Your task to perform on an android device: Open battery settings Image 0: 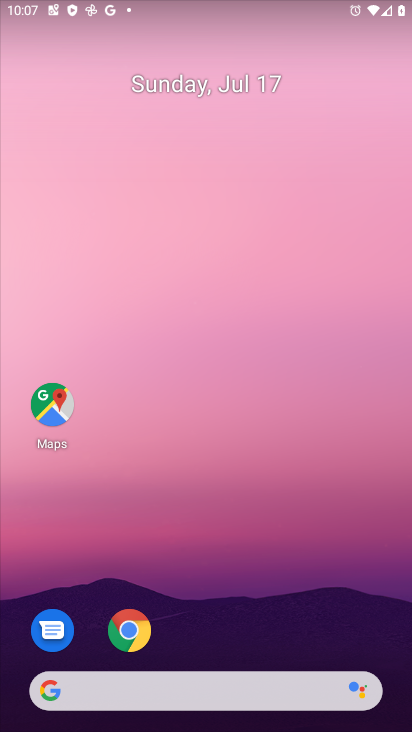
Step 0: drag from (263, 497) to (240, 27)
Your task to perform on an android device: Open battery settings Image 1: 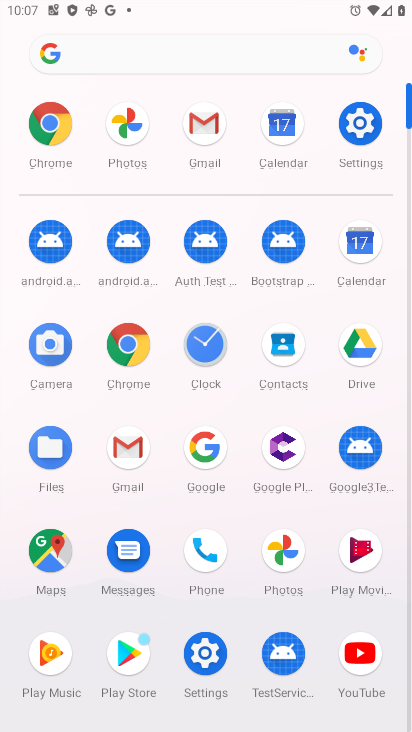
Step 1: click (345, 140)
Your task to perform on an android device: Open battery settings Image 2: 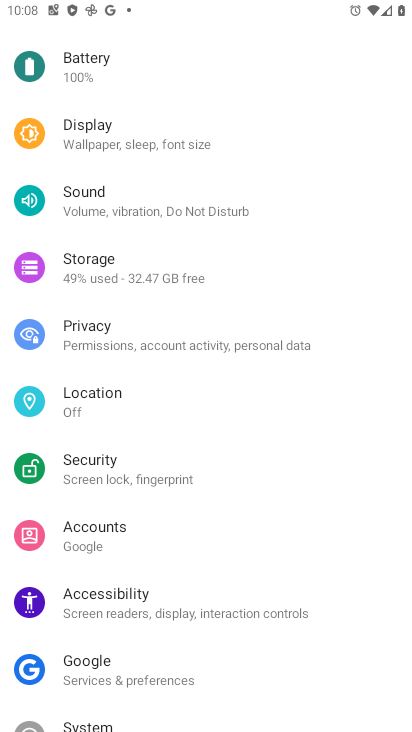
Step 2: click (75, 59)
Your task to perform on an android device: Open battery settings Image 3: 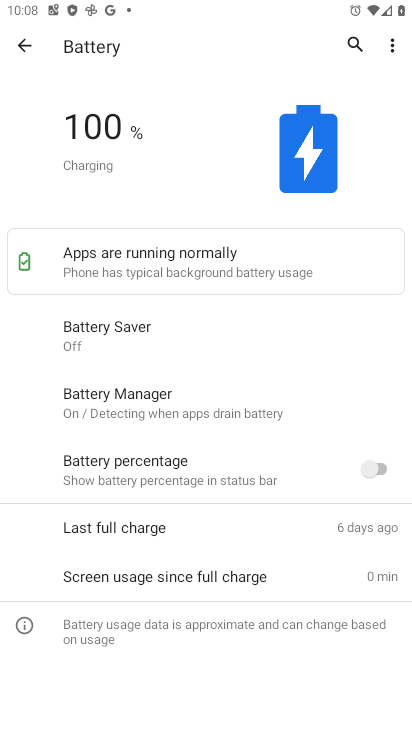
Step 3: task complete